Your task to perform on an android device: Open the calendar app, open the side menu, and click the "Day" option Image 0: 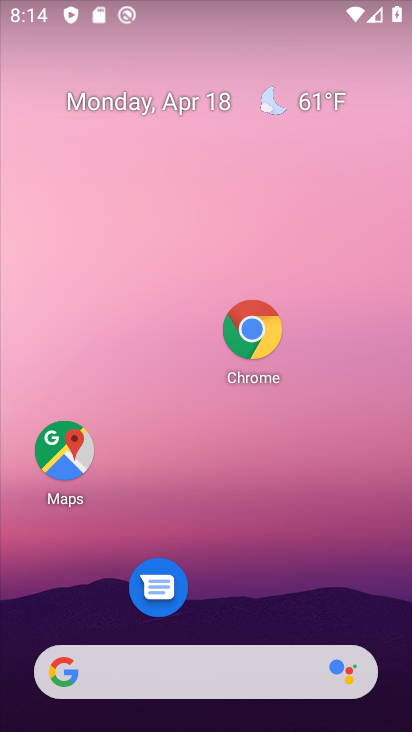
Step 0: drag from (277, 584) to (300, 272)
Your task to perform on an android device: Open the calendar app, open the side menu, and click the "Day" option Image 1: 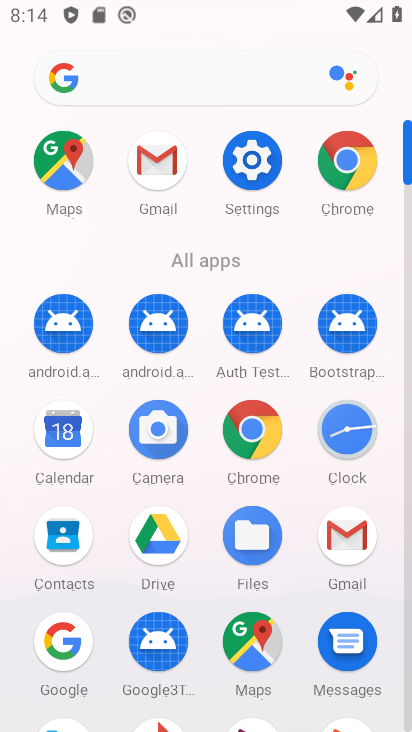
Step 1: click (52, 430)
Your task to perform on an android device: Open the calendar app, open the side menu, and click the "Day" option Image 2: 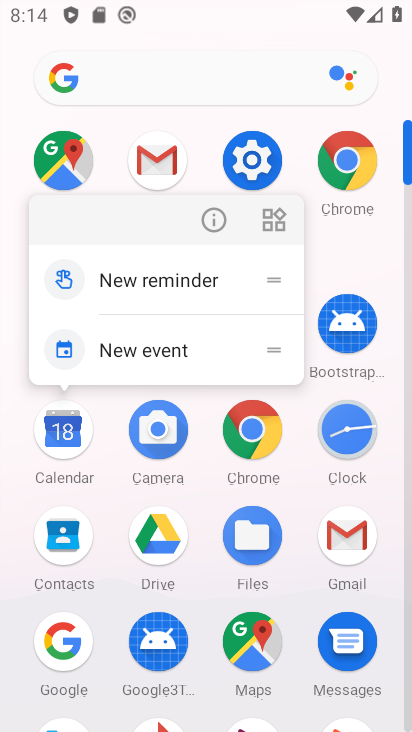
Step 2: click (53, 429)
Your task to perform on an android device: Open the calendar app, open the side menu, and click the "Day" option Image 3: 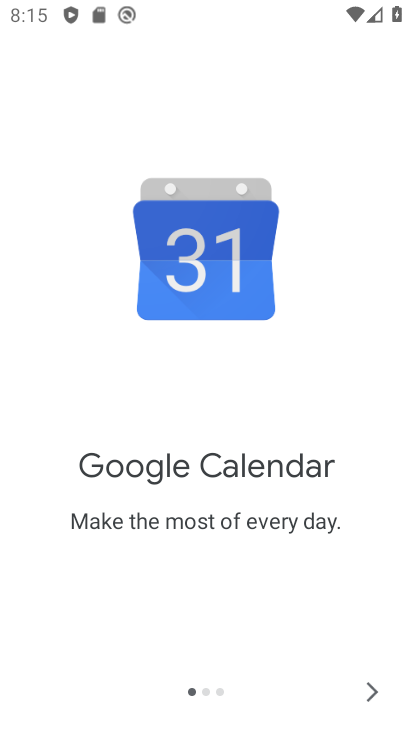
Step 3: click (349, 685)
Your task to perform on an android device: Open the calendar app, open the side menu, and click the "Day" option Image 4: 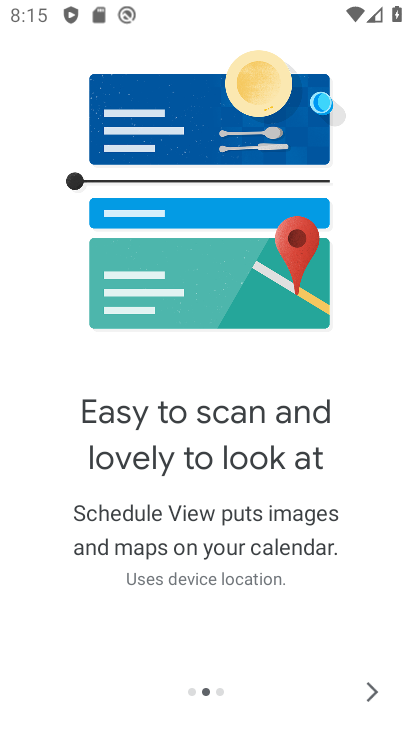
Step 4: click (352, 687)
Your task to perform on an android device: Open the calendar app, open the side menu, and click the "Day" option Image 5: 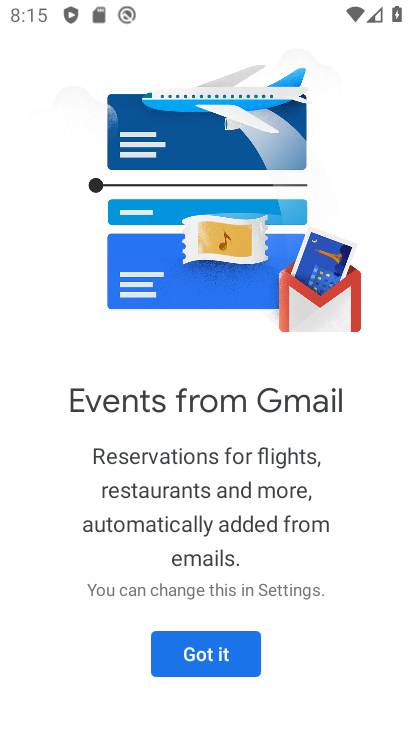
Step 5: click (179, 645)
Your task to perform on an android device: Open the calendar app, open the side menu, and click the "Day" option Image 6: 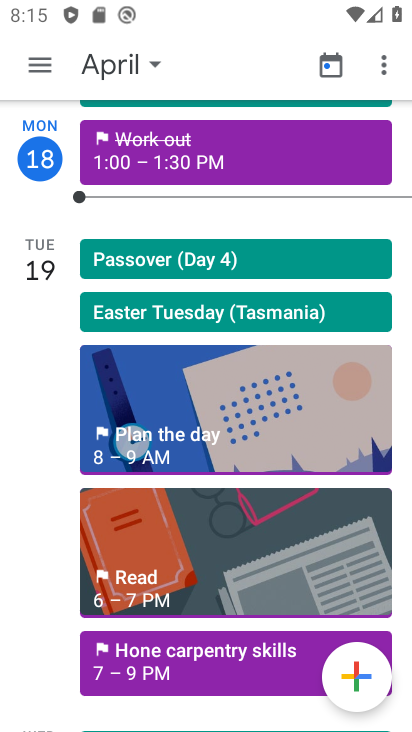
Step 6: click (34, 63)
Your task to perform on an android device: Open the calendar app, open the side menu, and click the "Day" option Image 7: 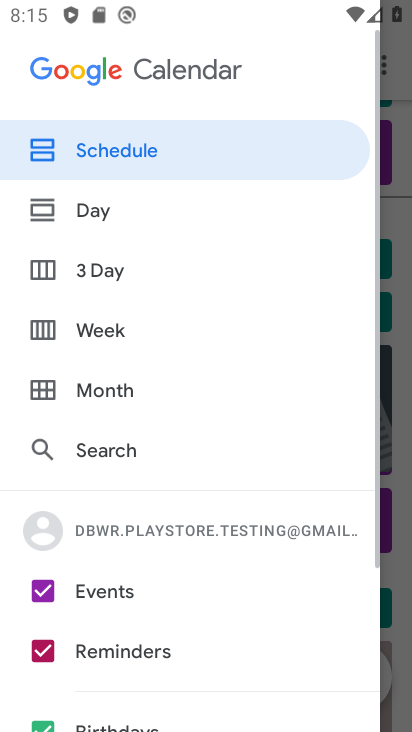
Step 7: click (95, 203)
Your task to perform on an android device: Open the calendar app, open the side menu, and click the "Day" option Image 8: 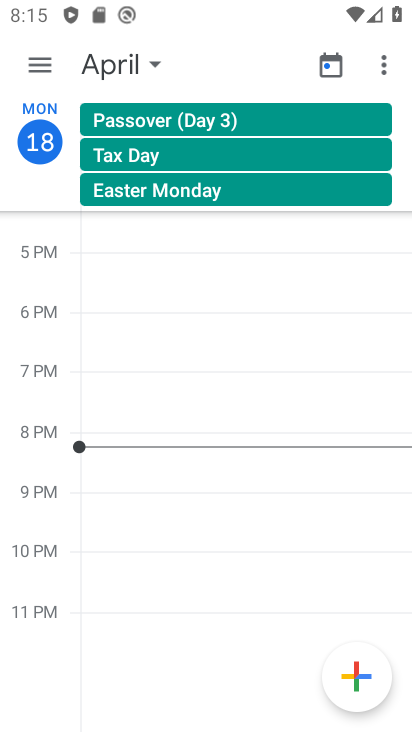
Step 8: task complete